Your task to perform on an android device: change alarm snooze length Image 0: 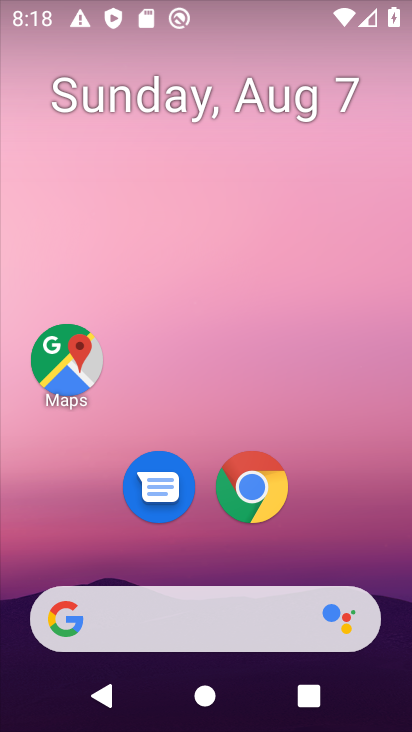
Step 0: drag from (229, 591) to (178, 90)
Your task to perform on an android device: change alarm snooze length Image 1: 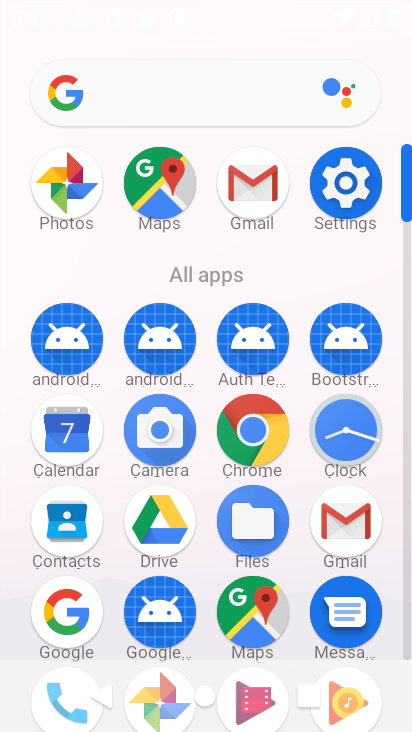
Step 1: click (335, 403)
Your task to perform on an android device: change alarm snooze length Image 2: 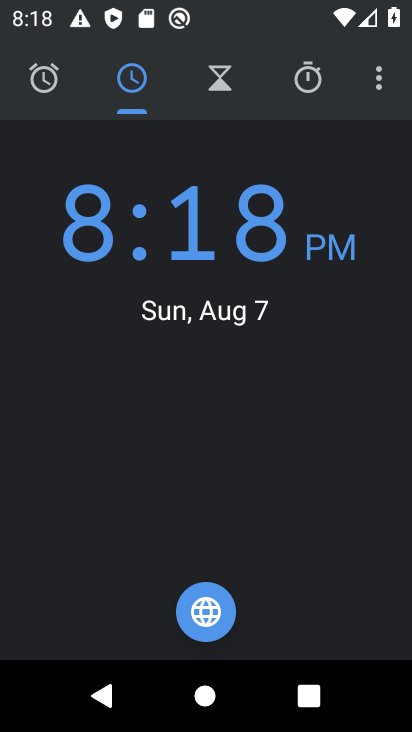
Step 2: click (389, 87)
Your task to perform on an android device: change alarm snooze length Image 3: 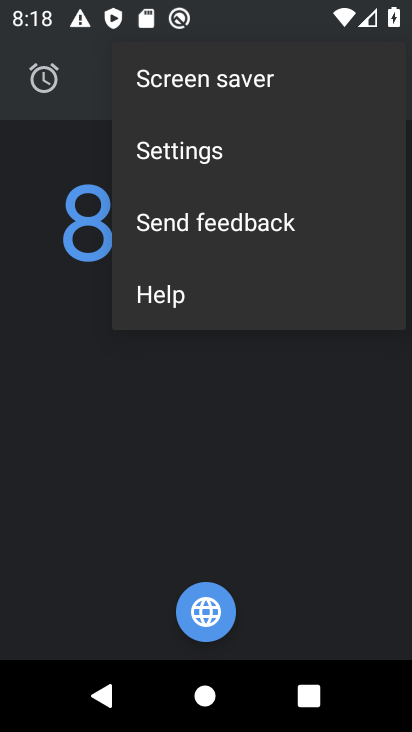
Step 3: click (226, 152)
Your task to perform on an android device: change alarm snooze length Image 4: 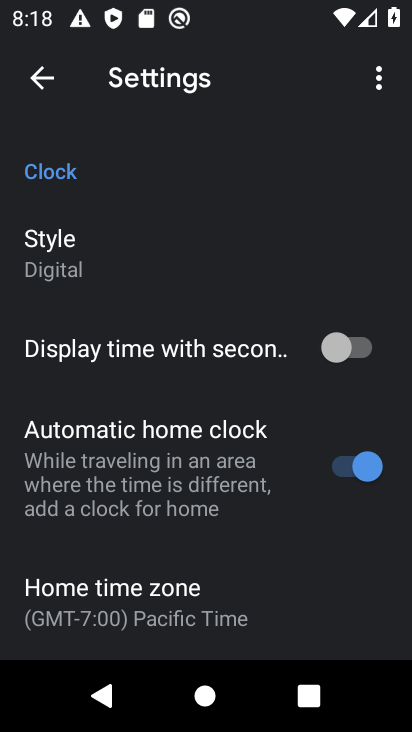
Step 4: drag from (266, 566) to (259, 183)
Your task to perform on an android device: change alarm snooze length Image 5: 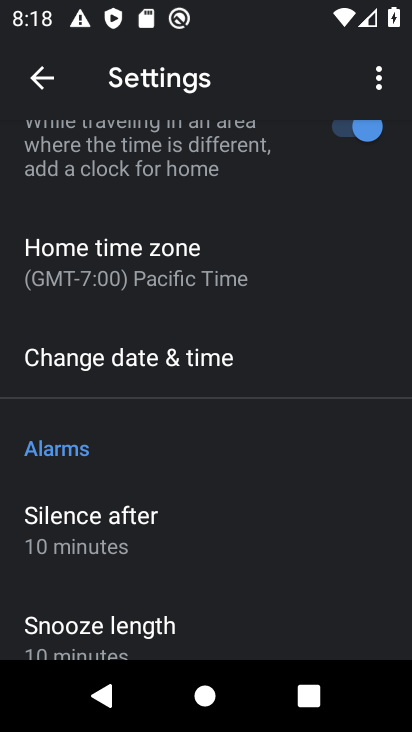
Step 5: click (95, 625)
Your task to perform on an android device: change alarm snooze length Image 6: 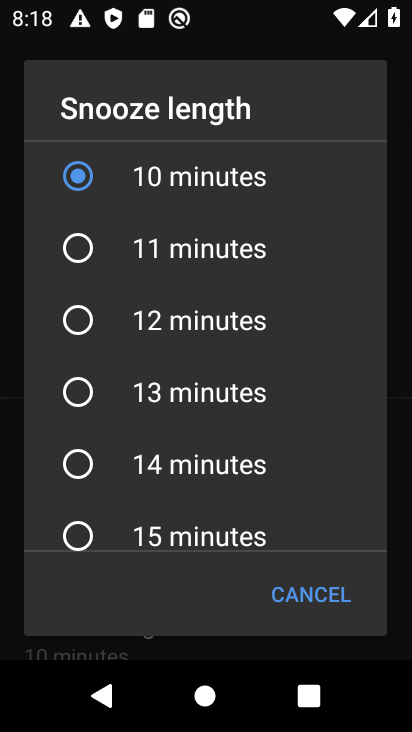
Step 6: click (152, 234)
Your task to perform on an android device: change alarm snooze length Image 7: 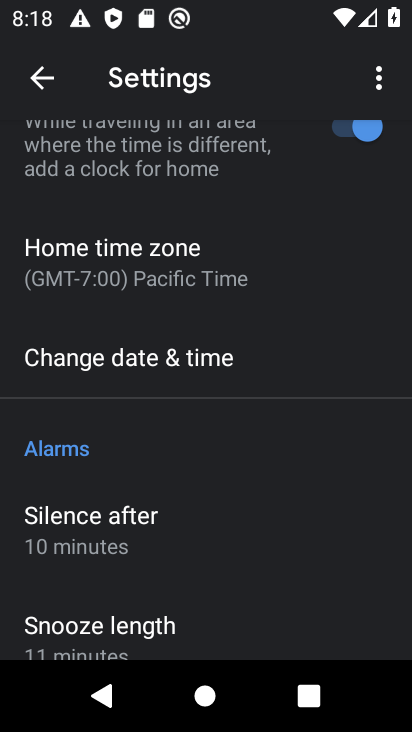
Step 7: task complete